Your task to perform on an android device: turn on the 12-hour format for clock Image 0: 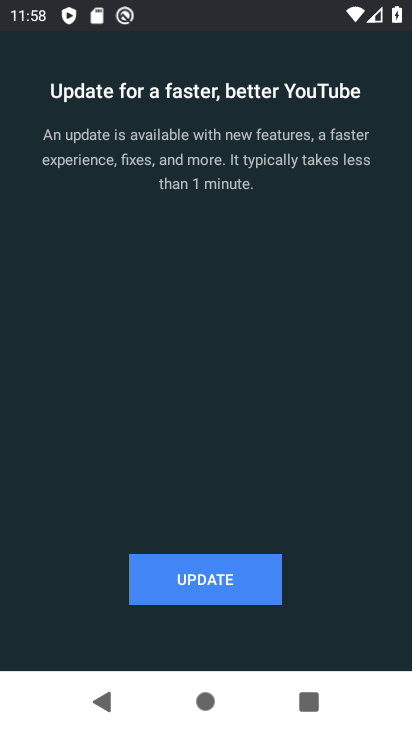
Step 0: press home button
Your task to perform on an android device: turn on the 12-hour format for clock Image 1: 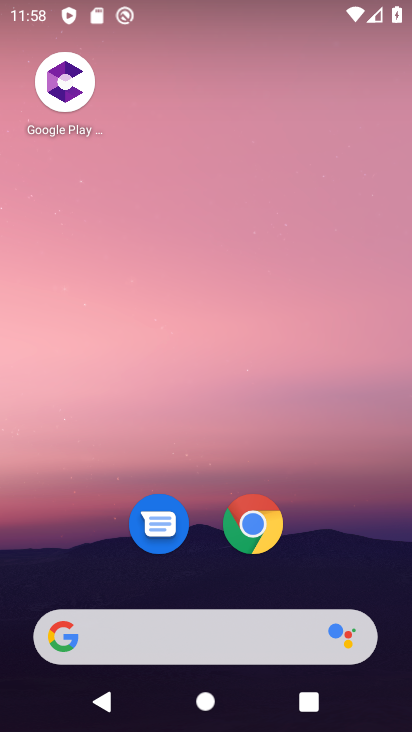
Step 1: drag from (332, 572) to (323, 19)
Your task to perform on an android device: turn on the 12-hour format for clock Image 2: 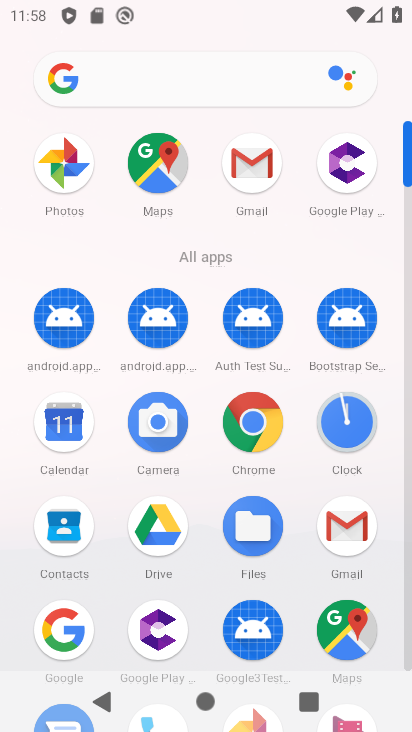
Step 2: click (345, 418)
Your task to perform on an android device: turn on the 12-hour format for clock Image 3: 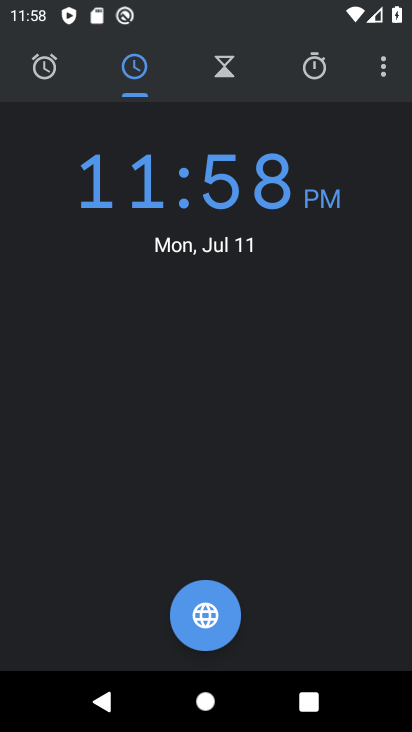
Step 3: click (388, 76)
Your task to perform on an android device: turn on the 12-hour format for clock Image 4: 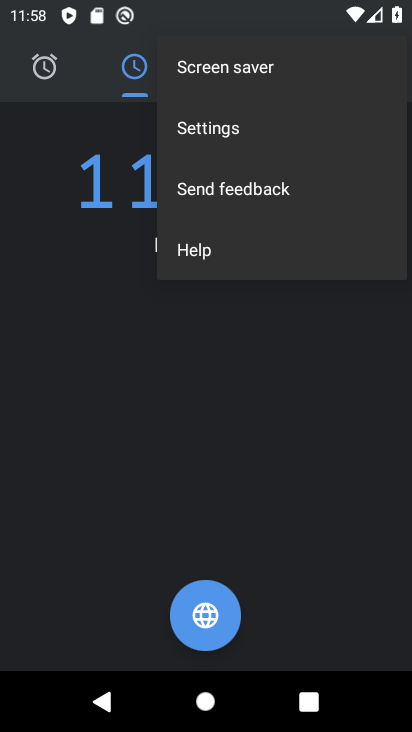
Step 4: click (314, 136)
Your task to perform on an android device: turn on the 12-hour format for clock Image 5: 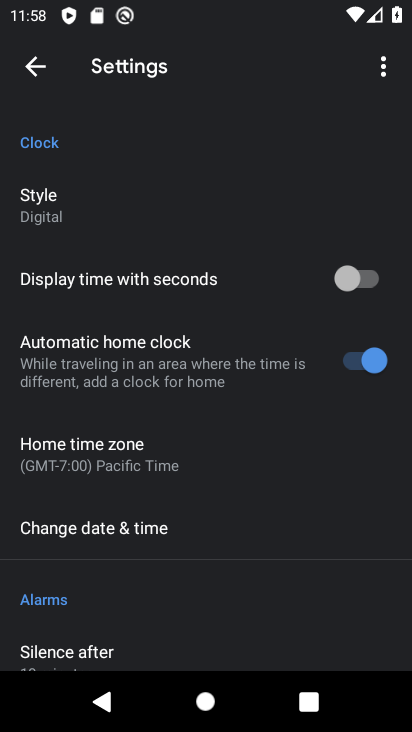
Step 5: click (204, 536)
Your task to perform on an android device: turn on the 12-hour format for clock Image 6: 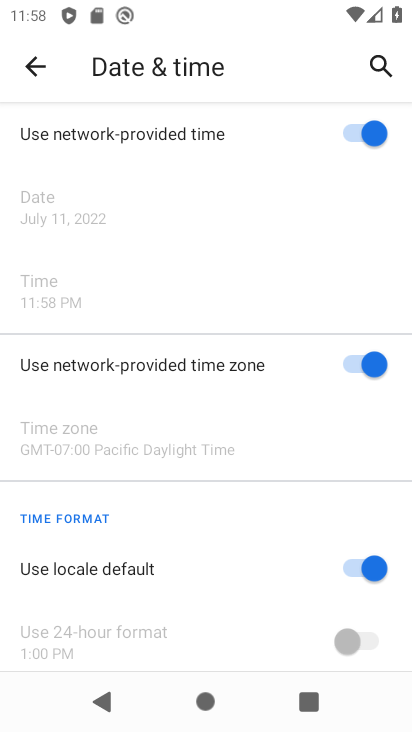
Step 6: task complete